Your task to perform on an android device: turn on the 12-hour format for clock Image 0: 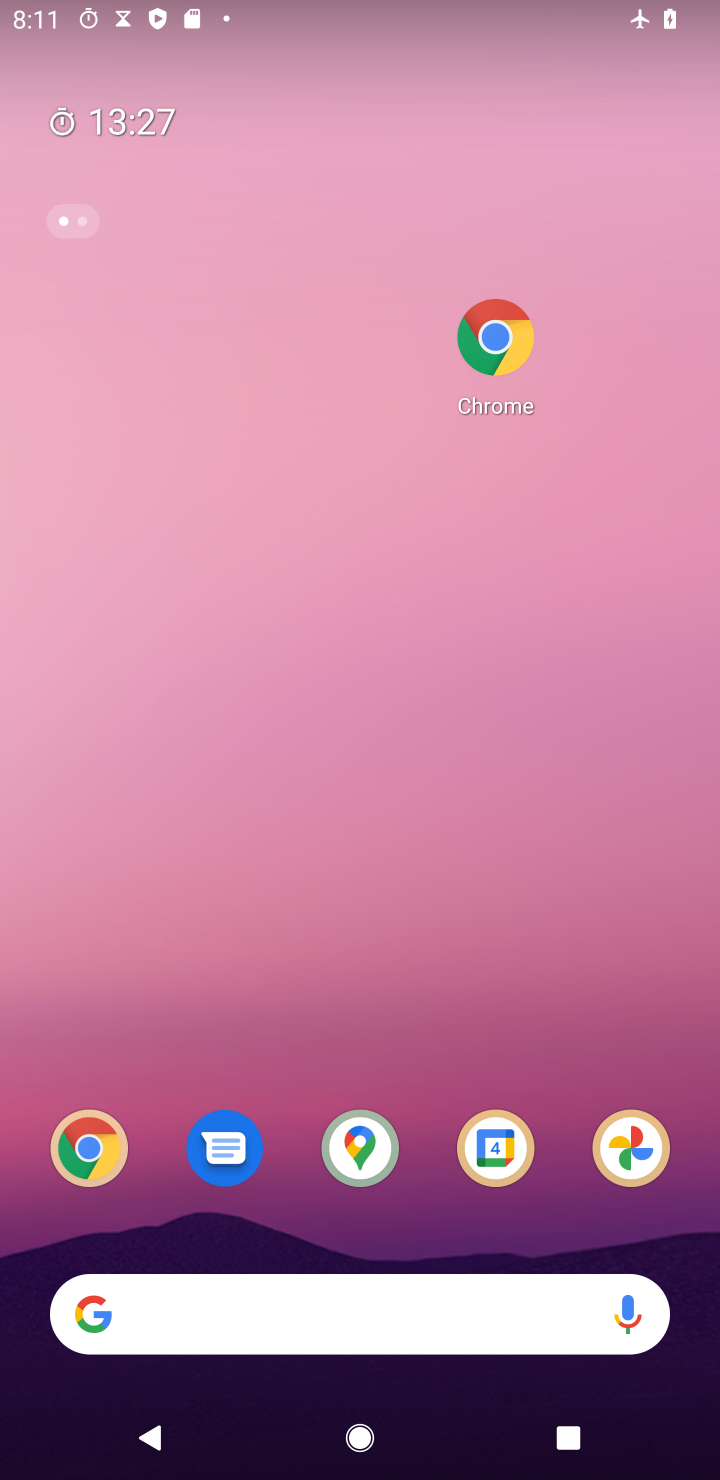
Step 0: drag from (694, 1074) to (537, 0)
Your task to perform on an android device: turn on the 12-hour format for clock Image 1: 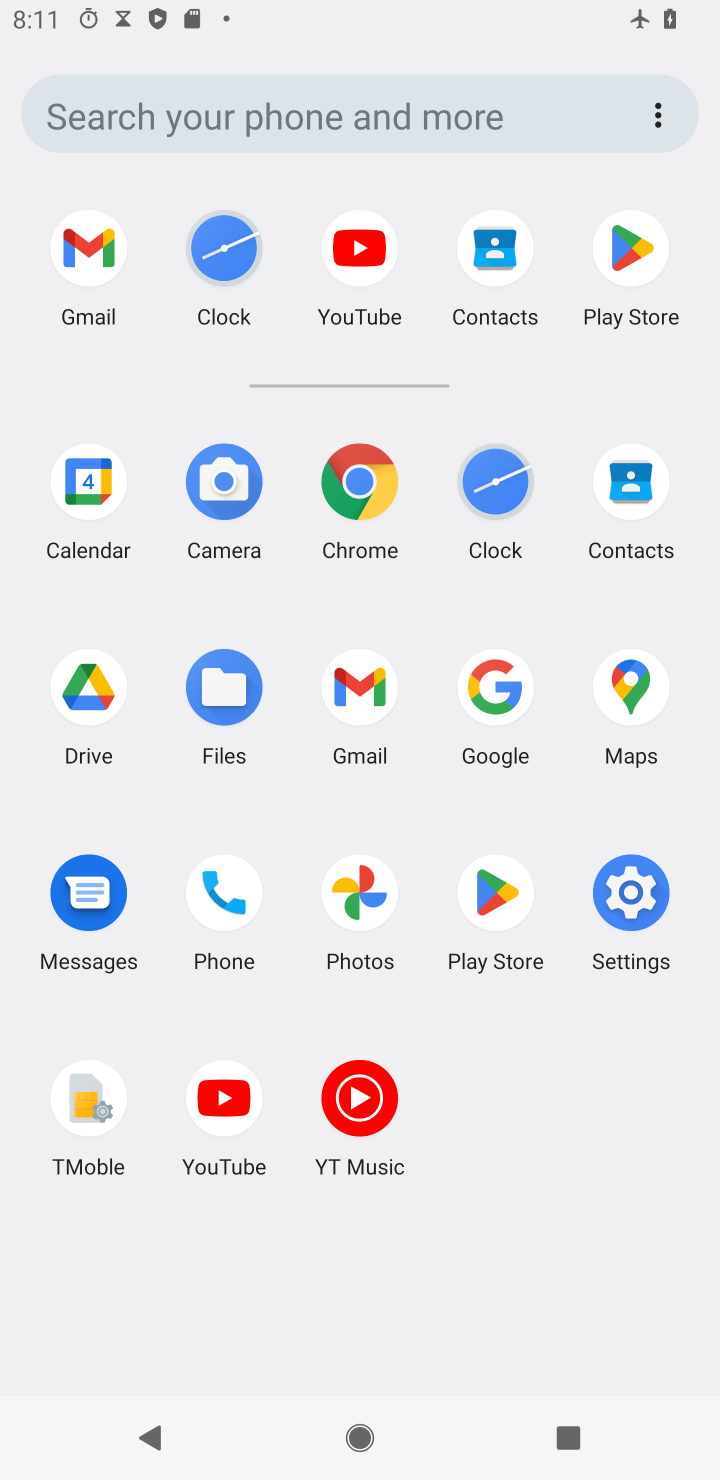
Step 1: click (491, 477)
Your task to perform on an android device: turn on the 12-hour format for clock Image 2: 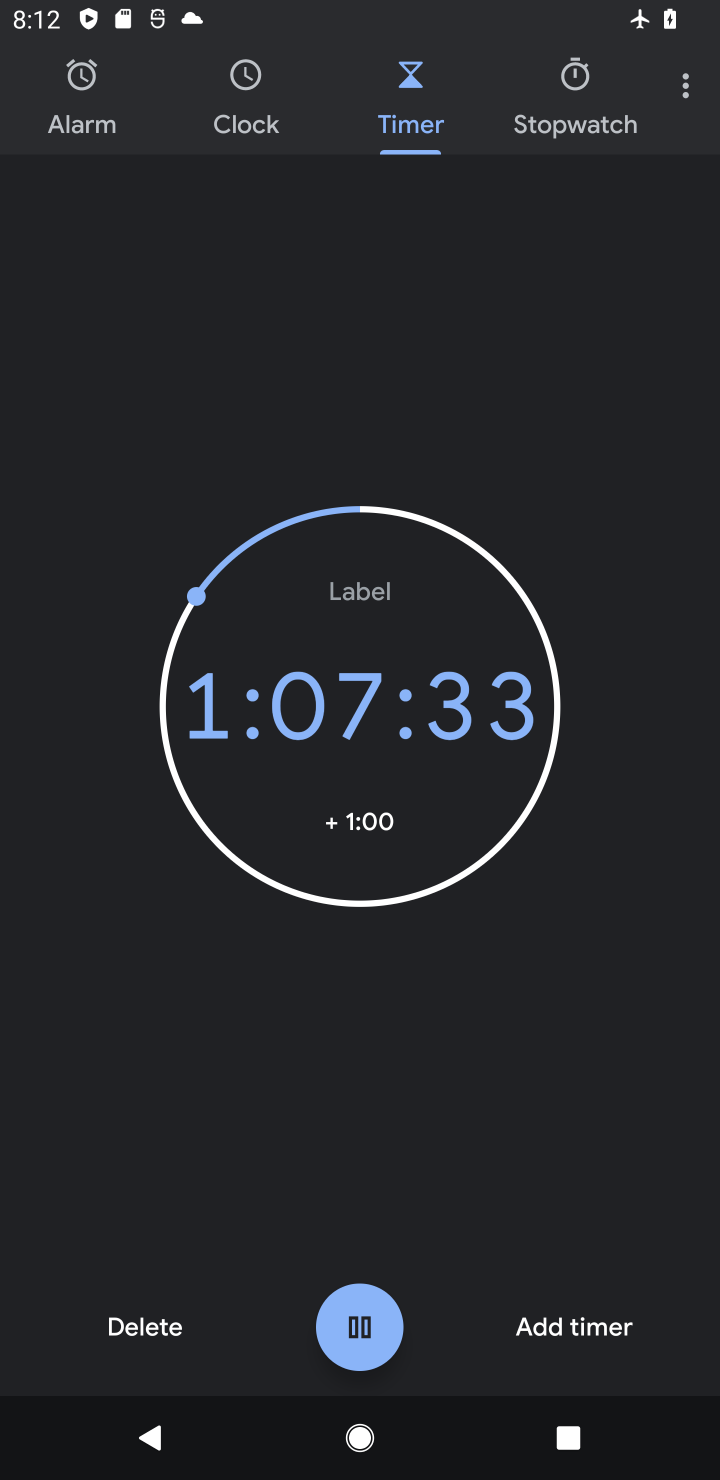
Step 2: click (685, 100)
Your task to perform on an android device: turn on the 12-hour format for clock Image 3: 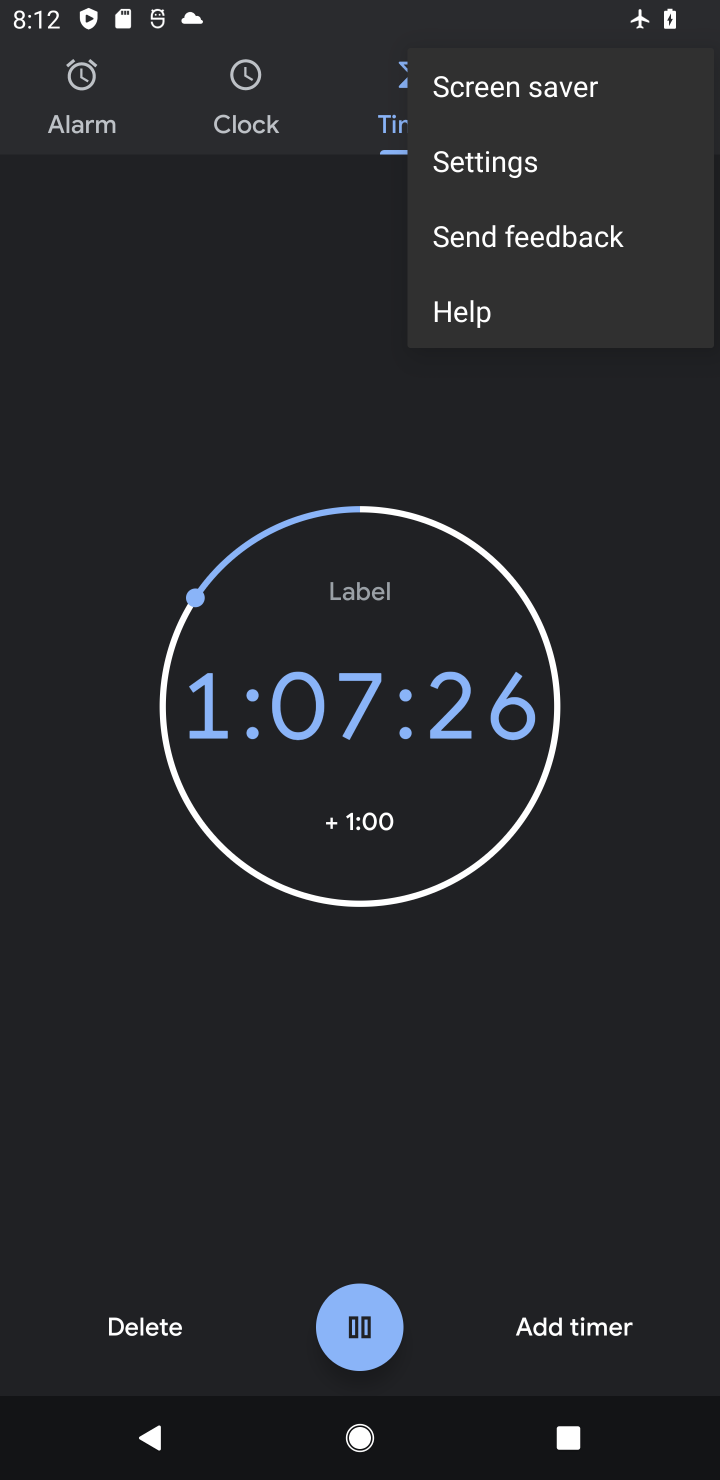
Step 3: click (546, 161)
Your task to perform on an android device: turn on the 12-hour format for clock Image 4: 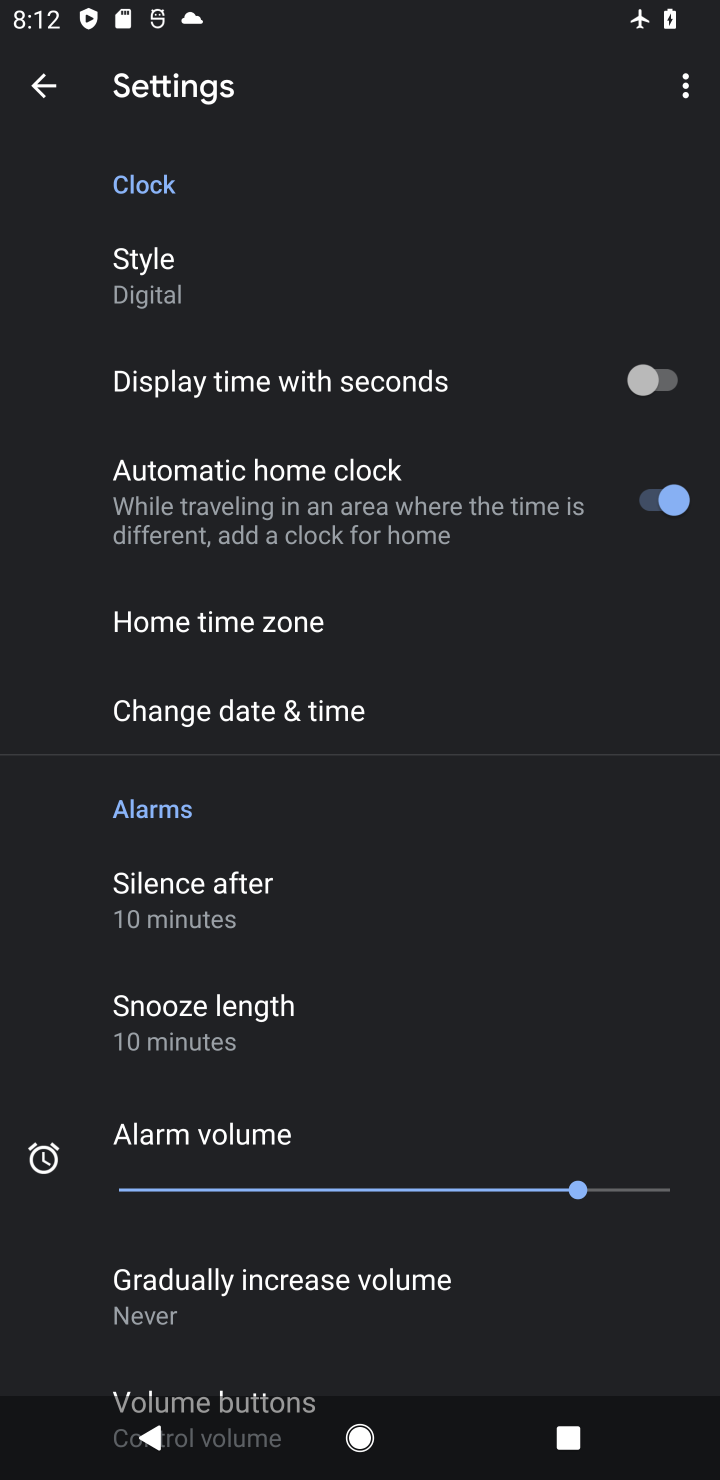
Step 4: click (584, 713)
Your task to perform on an android device: turn on the 12-hour format for clock Image 5: 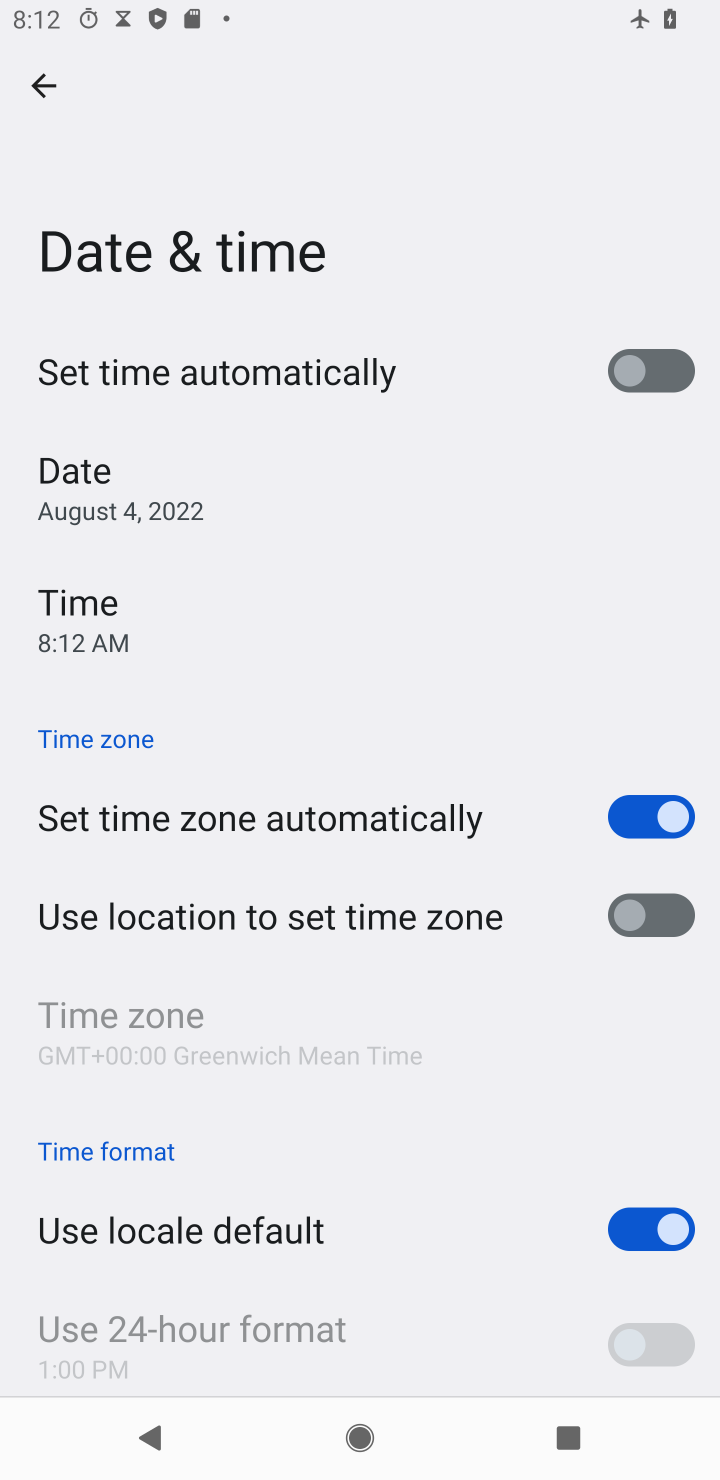
Step 5: task complete